Your task to perform on an android device: open device folders in google photos Image 0: 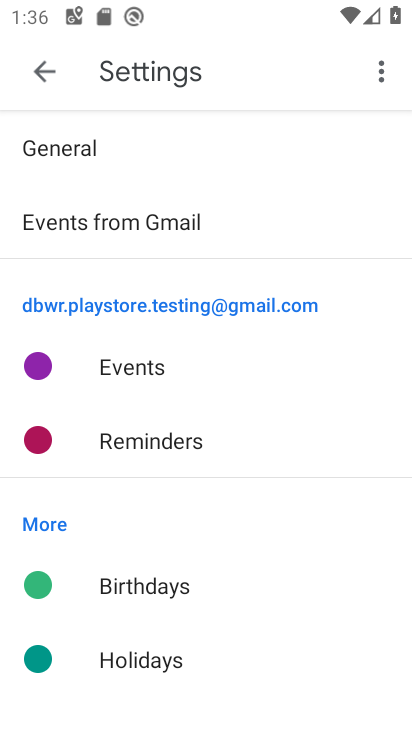
Step 0: press home button
Your task to perform on an android device: open device folders in google photos Image 1: 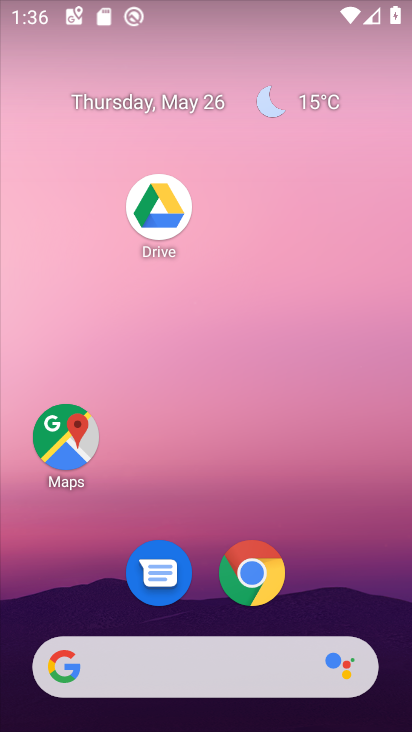
Step 1: drag from (341, 576) to (347, 206)
Your task to perform on an android device: open device folders in google photos Image 2: 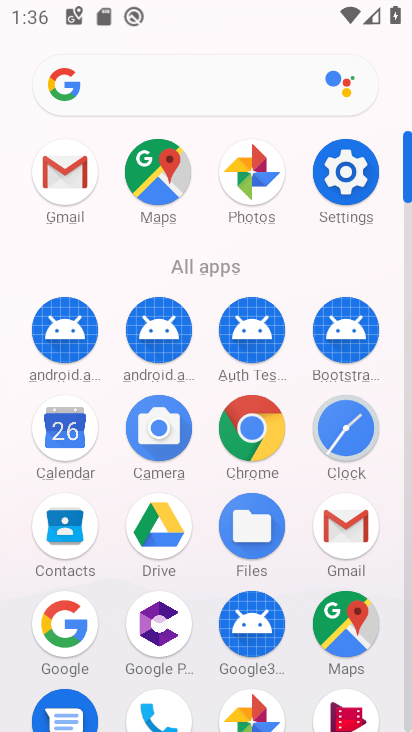
Step 2: click (280, 175)
Your task to perform on an android device: open device folders in google photos Image 3: 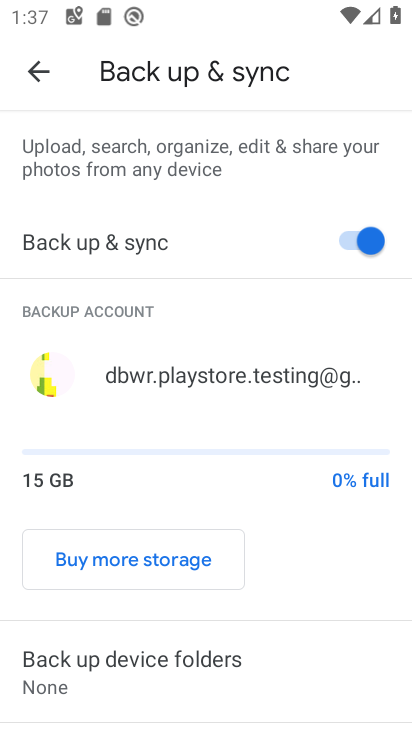
Step 3: click (47, 72)
Your task to perform on an android device: open device folders in google photos Image 4: 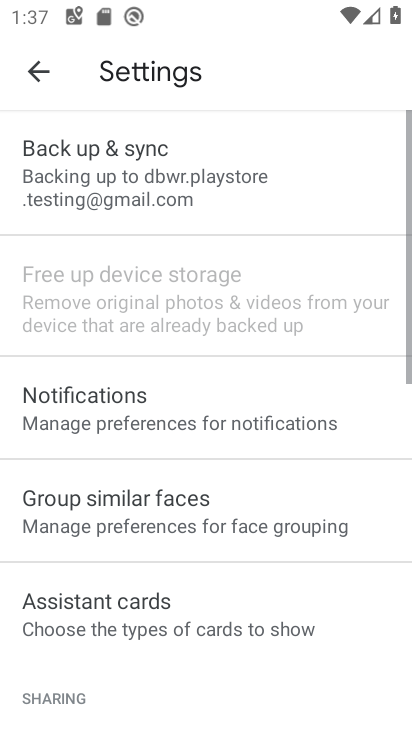
Step 4: click (47, 72)
Your task to perform on an android device: open device folders in google photos Image 5: 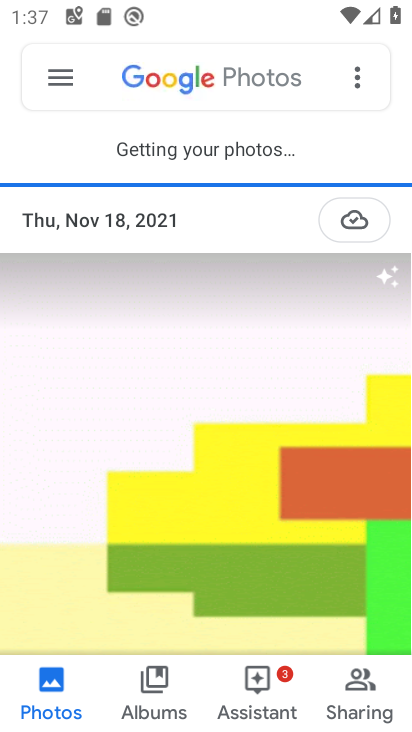
Step 5: click (46, 71)
Your task to perform on an android device: open device folders in google photos Image 6: 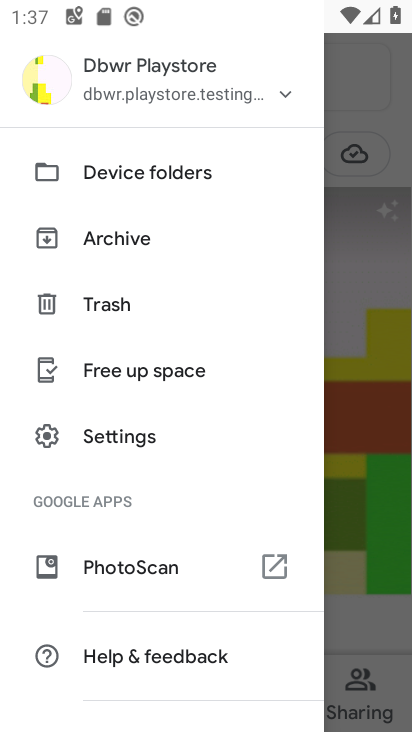
Step 6: click (125, 170)
Your task to perform on an android device: open device folders in google photos Image 7: 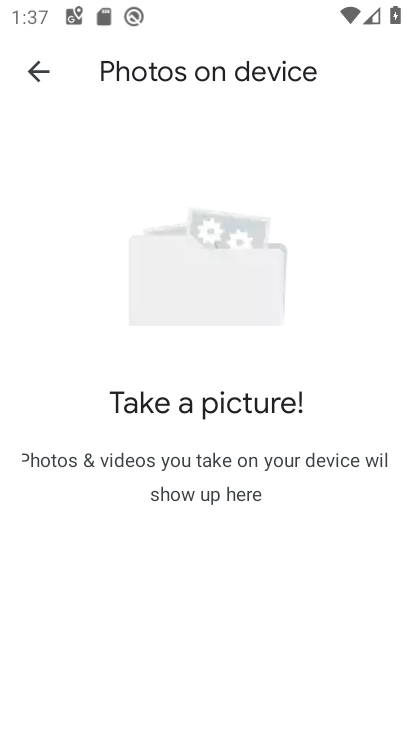
Step 7: task complete